Your task to perform on an android device: Go to CNN.com Image 0: 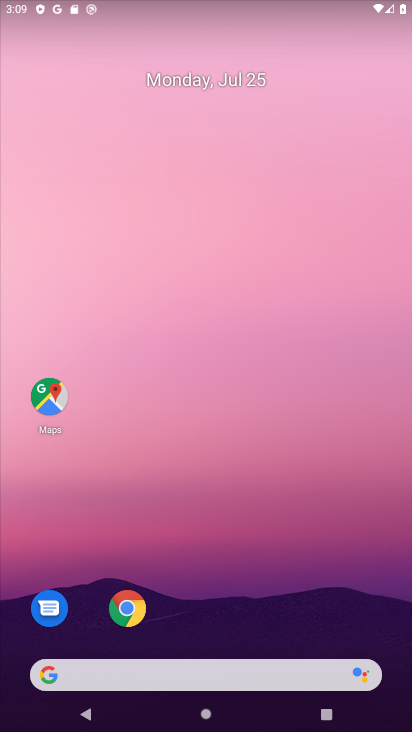
Step 0: click (134, 597)
Your task to perform on an android device: Go to CNN.com Image 1: 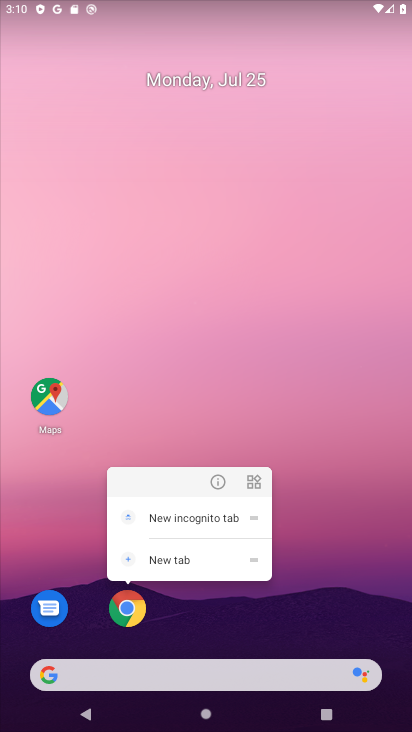
Step 1: click (124, 604)
Your task to perform on an android device: Go to CNN.com Image 2: 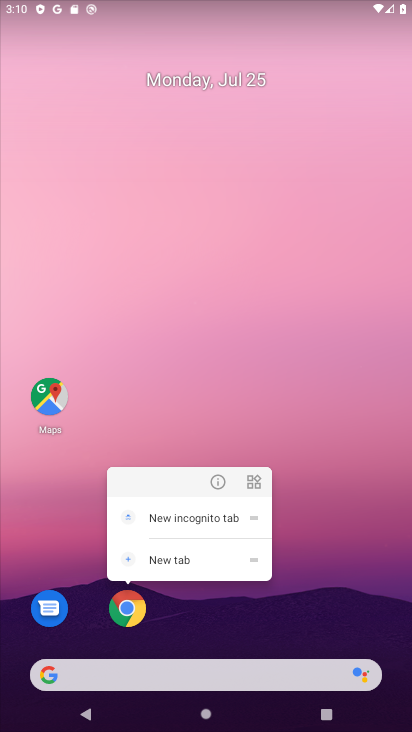
Step 2: click (125, 680)
Your task to perform on an android device: Go to CNN.com Image 3: 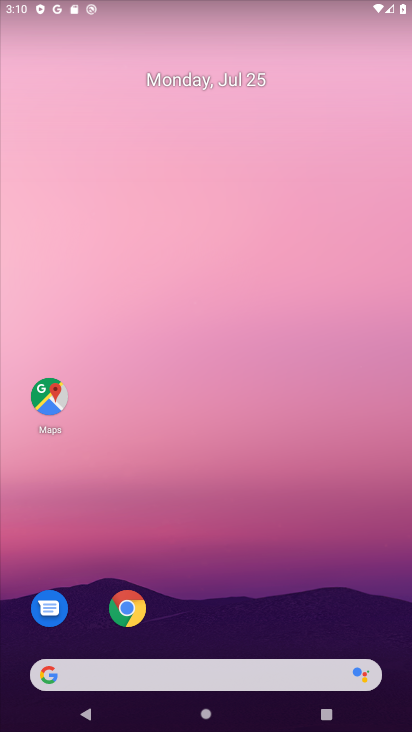
Step 3: click (157, 693)
Your task to perform on an android device: Go to CNN.com Image 4: 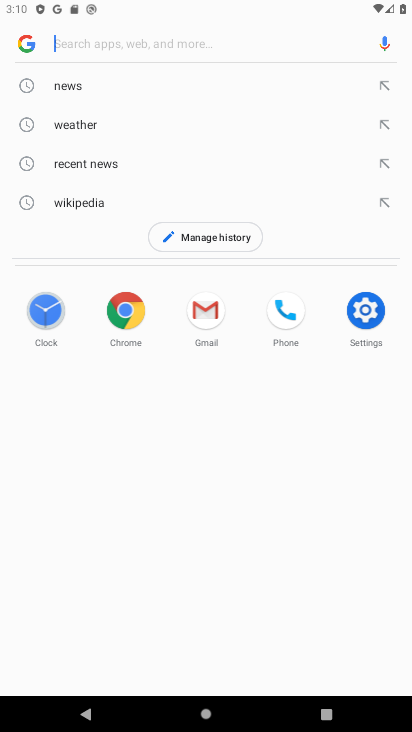
Step 4: click (190, 43)
Your task to perform on an android device: Go to CNN.com Image 5: 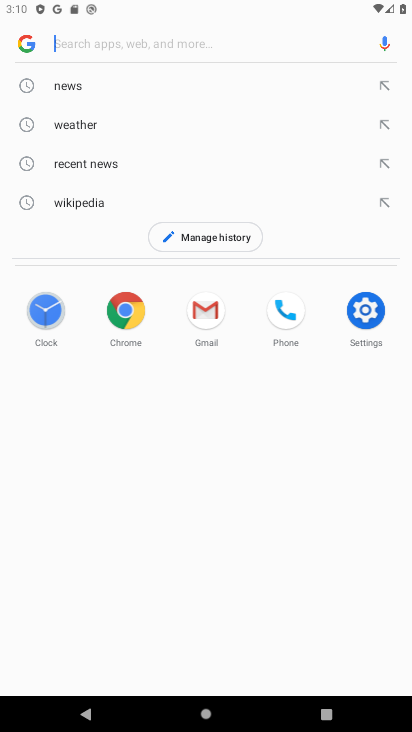
Step 5: type "CNN.com"
Your task to perform on an android device: Go to CNN.com Image 6: 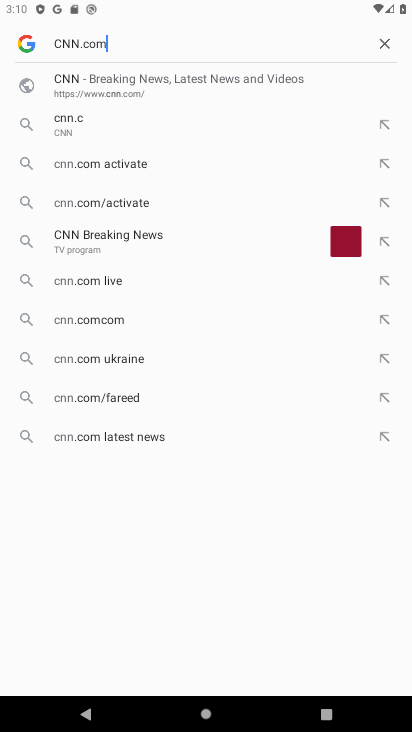
Step 6: type ""
Your task to perform on an android device: Go to CNN.com Image 7: 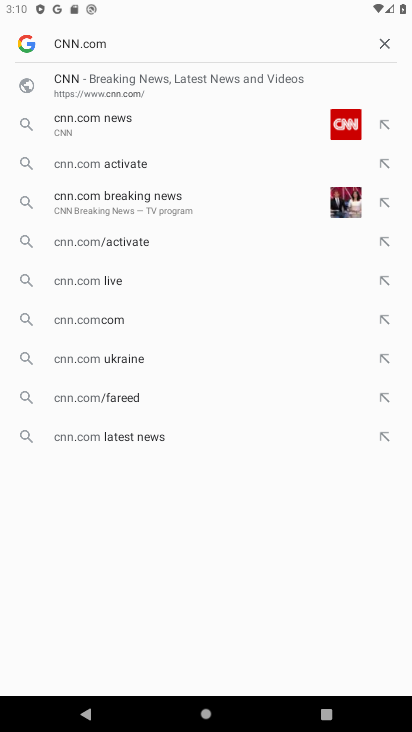
Step 7: click (93, 85)
Your task to perform on an android device: Go to CNN.com Image 8: 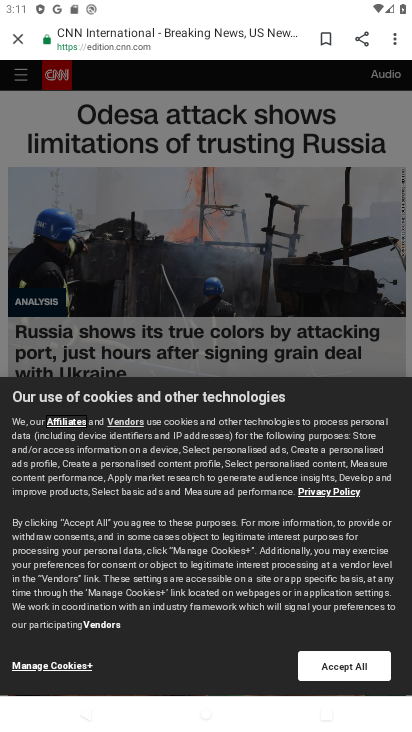
Step 8: task complete